Your task to perform on an android device: toggle priority inbox in the gmail app Image 0: 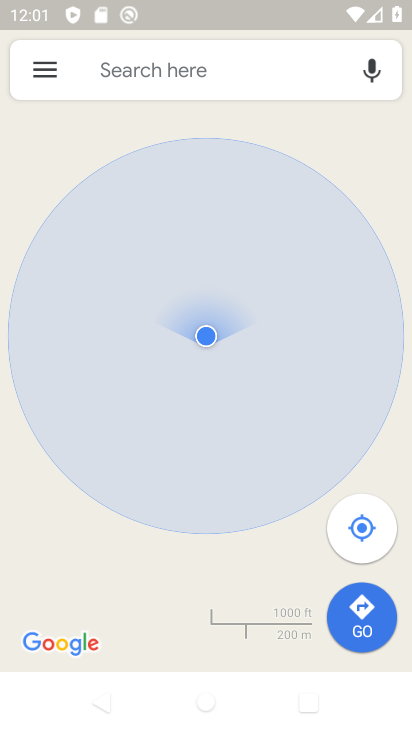
Step 0: press home button
Your task to perform on an android device: toggle priority inbox in the gmail app Image 1: 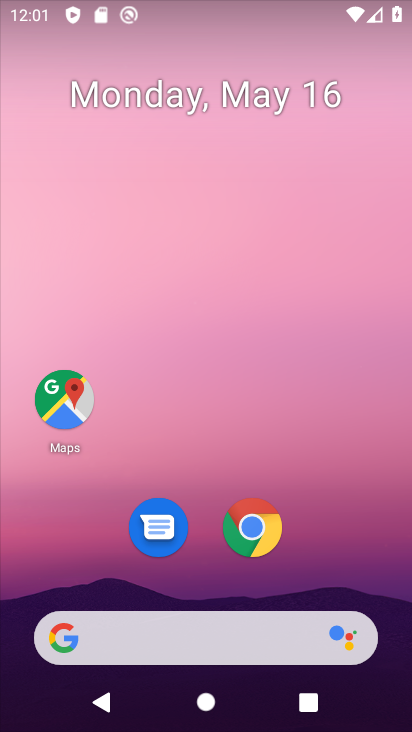
Step 1: drag from (219, 566) to (205, 63)
Your task to perform on an android device: toggle priority inbox in the gmail app Image 2: 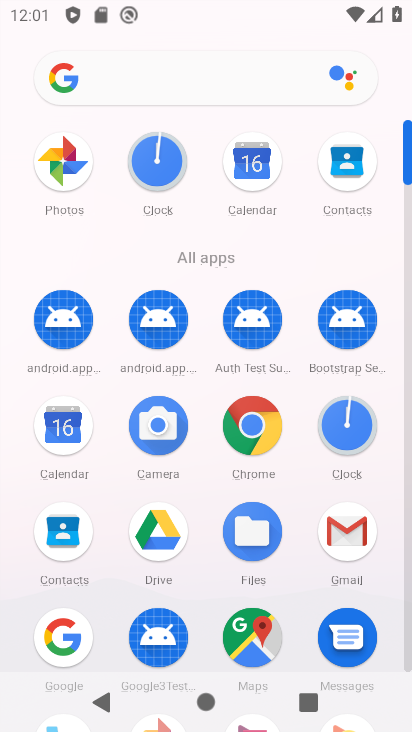
Step 2: click (341, 544)
Your task to perform on an android device: toggle priority inbox in the gmail app Image 3: 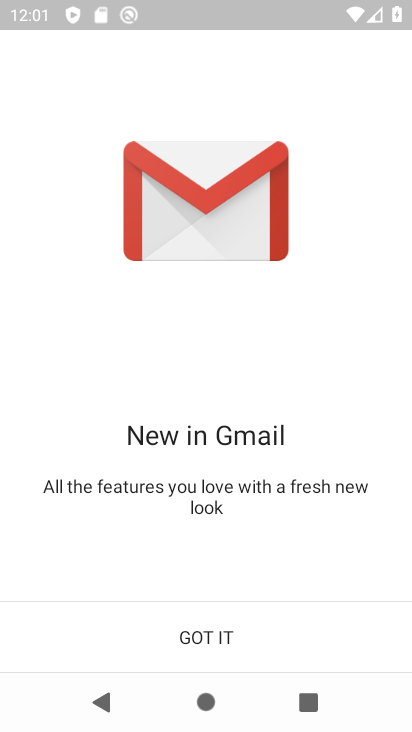
Step 3: click (220, 617)
Your task to perform on an android device: toggle priority inbox in the gmail app Image 4: 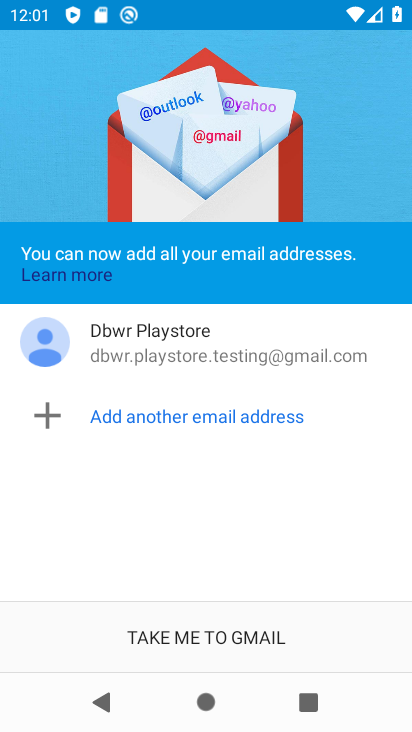
Step 4: click (282, 617)
Your task to perform on an android device: toggle priority inbox in the gmail app Image 5: 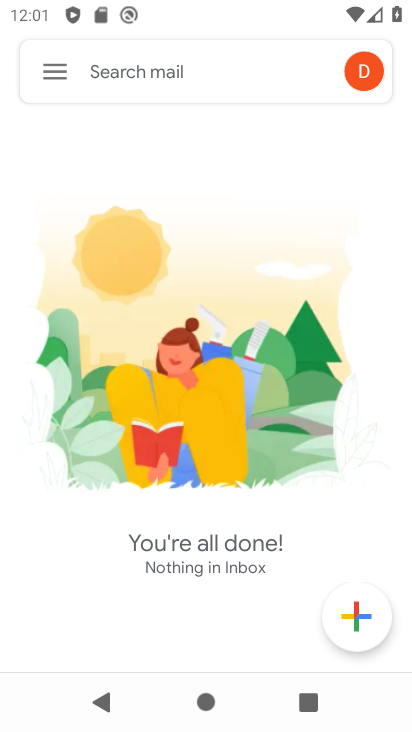
Step 5: click (59, 67)
Your task to perform on an android device: toggle priority inbox in the gmail app Image 6: 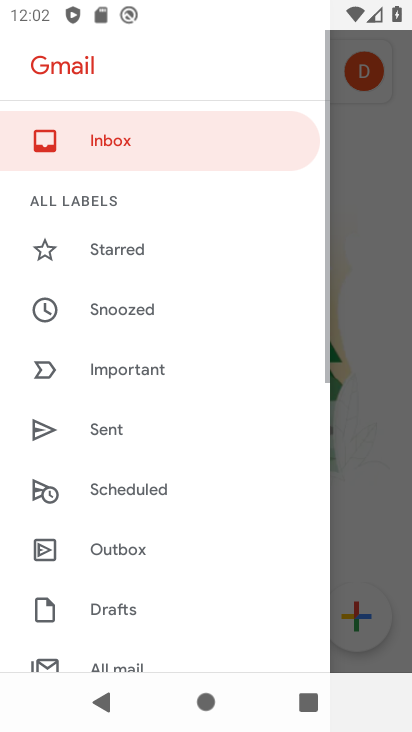
Step 6: drag from (147, 516) to (195, 193)
Your task to perform on an android device: toggle priority inbox in the gmail app Image 7: 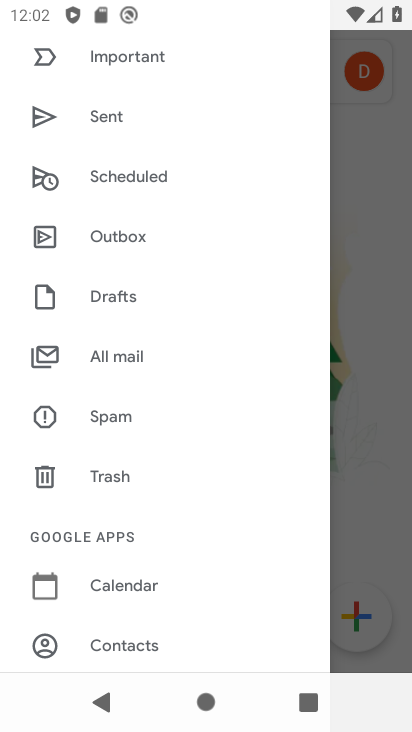
Step 7: drag from (138, 576) to (188, 189)
Your task to perform on an android device: toggle priority inbox in the gmail app Image 8: 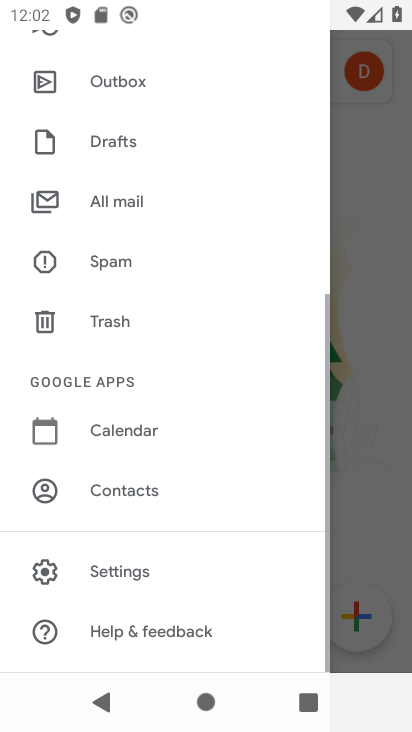
Step 8: click (110, 587)
Your task to perform on an android device: toggle priority inbox in the gmail app Image 9: 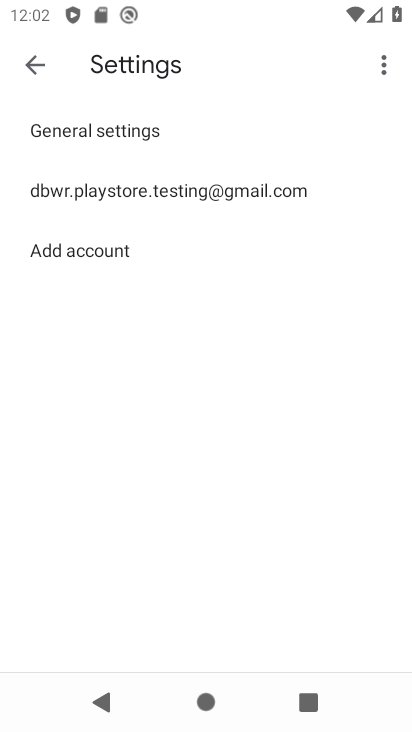
Step 9: click (79, 196)
Your task to perform on an android device: toggle priority inbox in the gmail app Image 10: 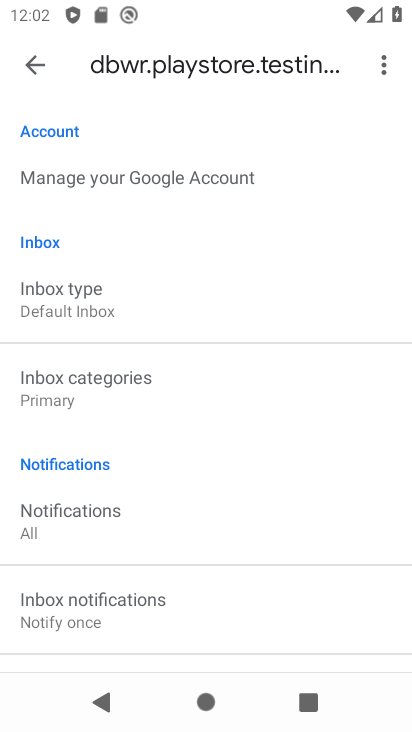
Step 10: click (84, 306)
Your task to perform on an android device: toggle priority inbox in the gmail app Image 11: 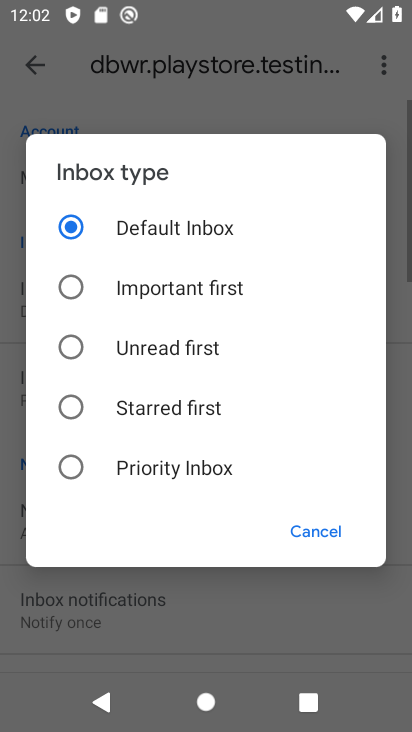
Step 11: click (102, 470)
Your task to perform on an android device: toggle priority inbox in the gmail app Image 12: 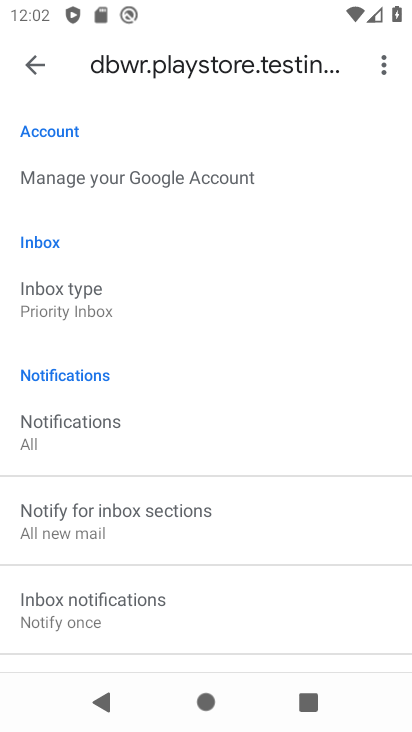
Step 12: task complete